Your task to perform on an android device: read, delete, or share a saved page in the chrome app Image 0: 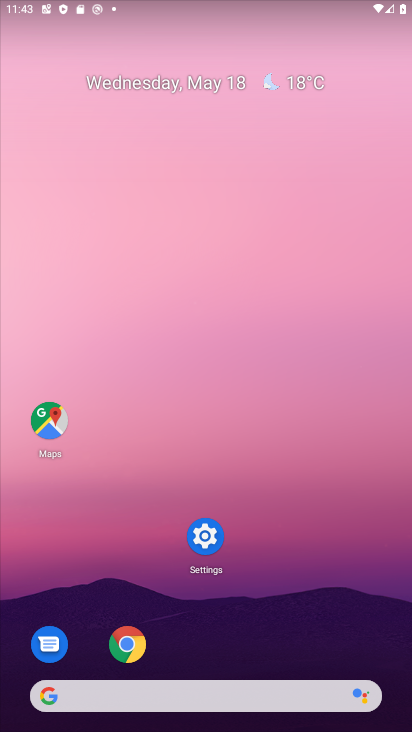
Step 0: drag from (359, 607) to (331, 166)
Your task to perform on an android device: read, delete, or share a saved page in the chrome app Image 1: 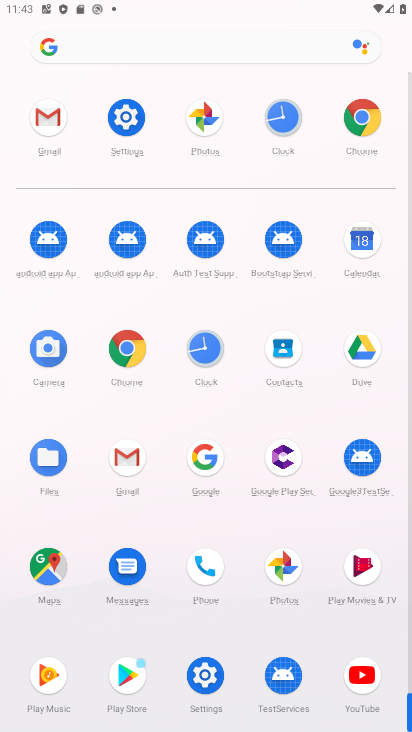
Step 1: click (365, 108)
Your task to perform on an android device: read, delete, or share a saved page in the chrome app Image 2: 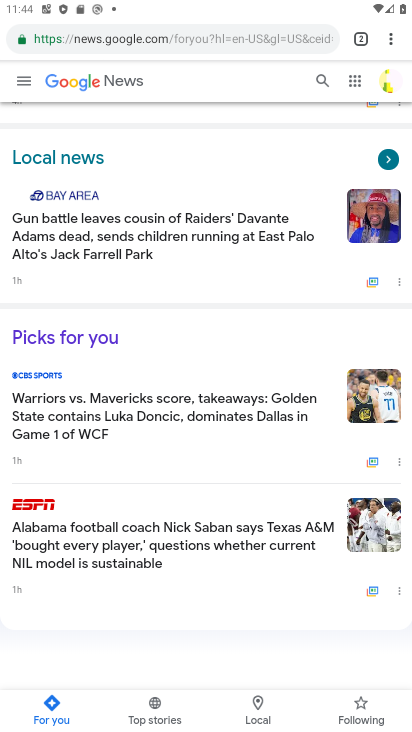
Step 2: click (388, 37)
Your task to perform on an android device: read, delete, or share a saved page in the chrome app Image 3: 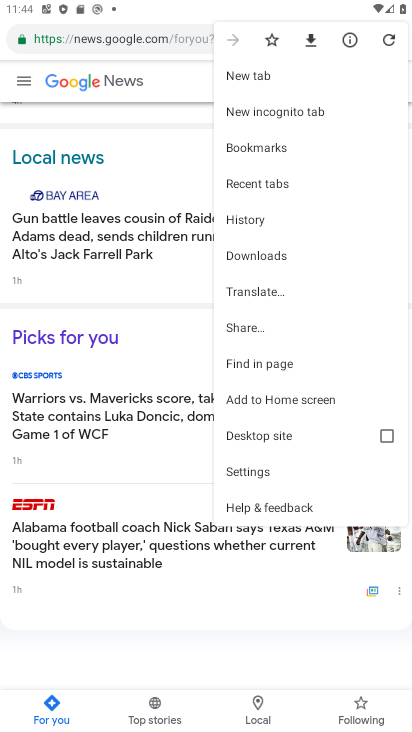
Step 3: drag from (312, 457) to (336, 147)
Your task to perform on an android device: read, delete, or share a saved page in the chrome app Image 4: 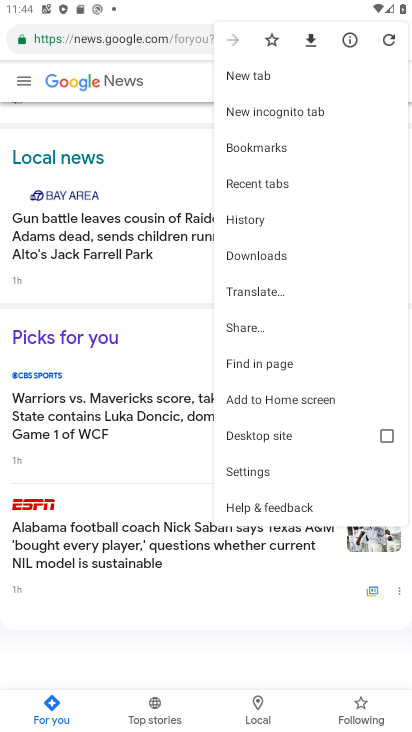
Step 4: click (278, 260)
Your task to perform on an android device: read, delete, or share a saved page in the chrome app Image 5: 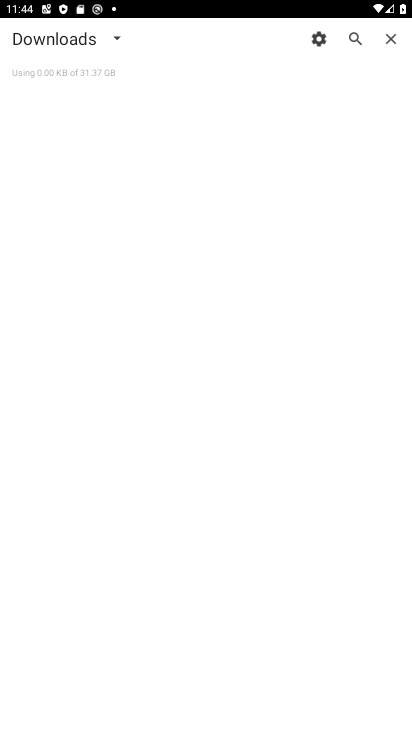
Step 5: task complete